Your task to perform on an android device: turn off sleep mode Image 0: 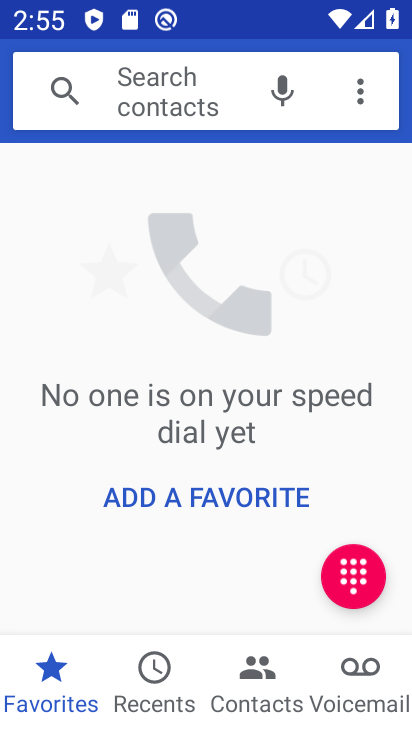
Step 0: press home button
Your task to perform on an android device: turn off sleep mode Image 1: 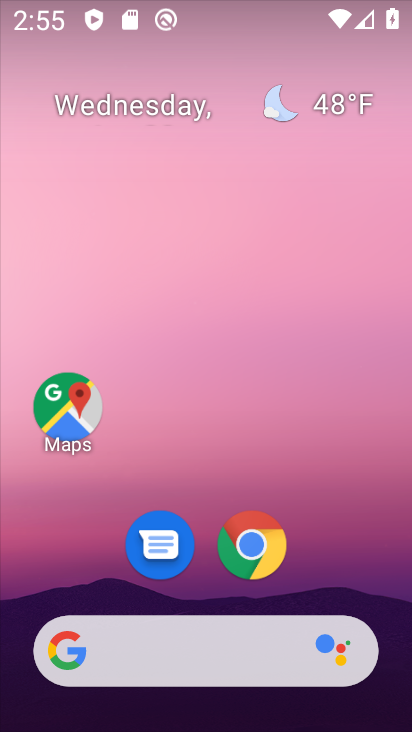
Step 1: drag from (331, 577) to (382, 70)
Your task to perform on an android device: turn off sleep mode Image 2: 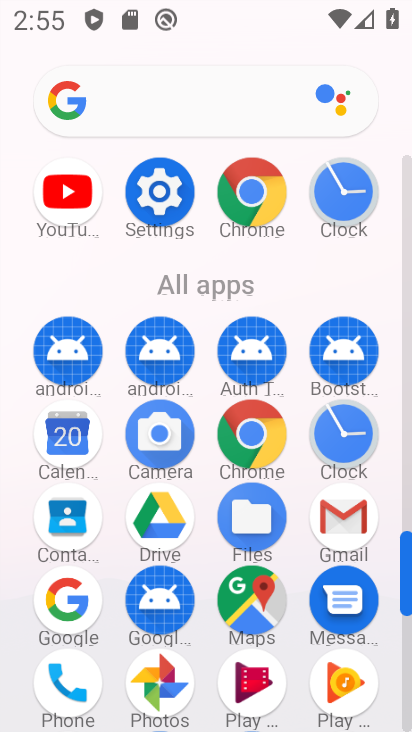
Step 2: drag from (195, 530) to (239, 166)
Your task to perform on an android device: turn off sleep mode Image 3: 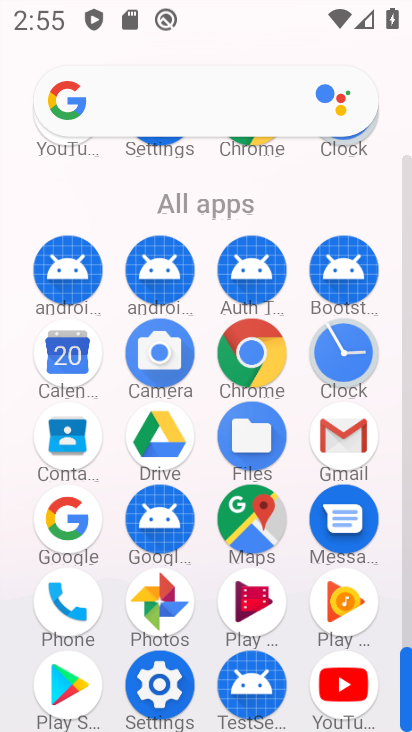
Step 3: click (167, 675)
Your task to perform on an android device: turn off sleep mode Image 4: 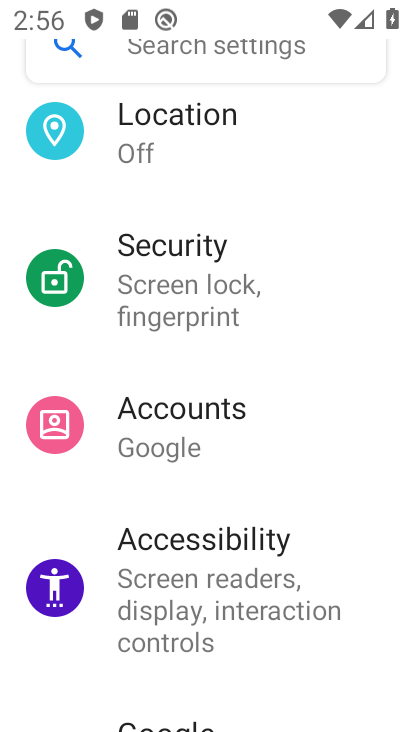
Step 4: drag from (257, 579) to (224, 186)
Your task to perform on an android device: turn off sleep mode Image 5: 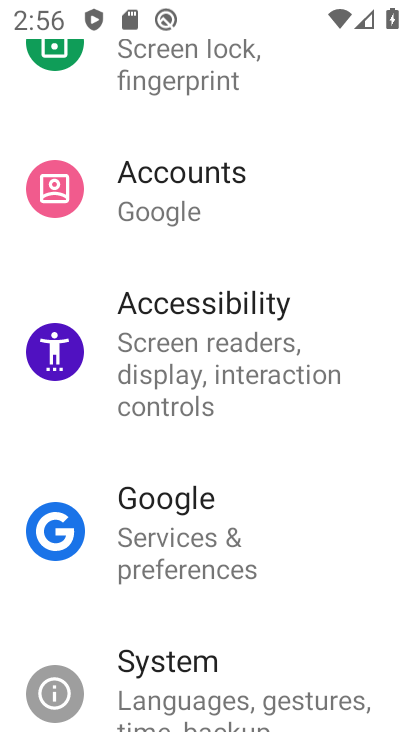
Step 5: drag from (276, 280) to (297, 600)
Your task to perform on an android device: turn off sleep mode Image 6: 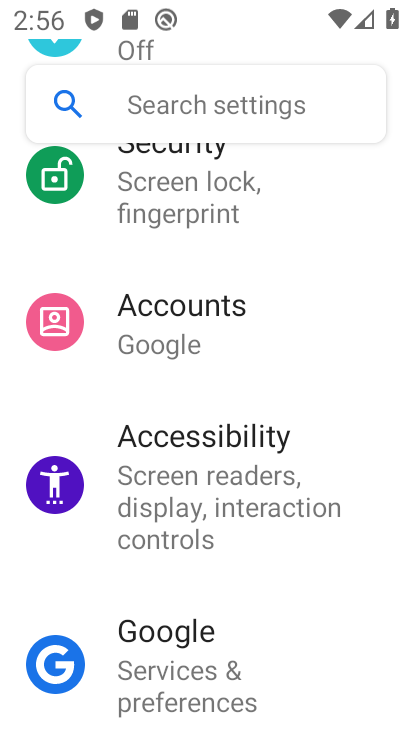
Step 6: drag from (290, 236) to (300, 590)
Your task to perform on an android device: turn off sleep mode Image 7: 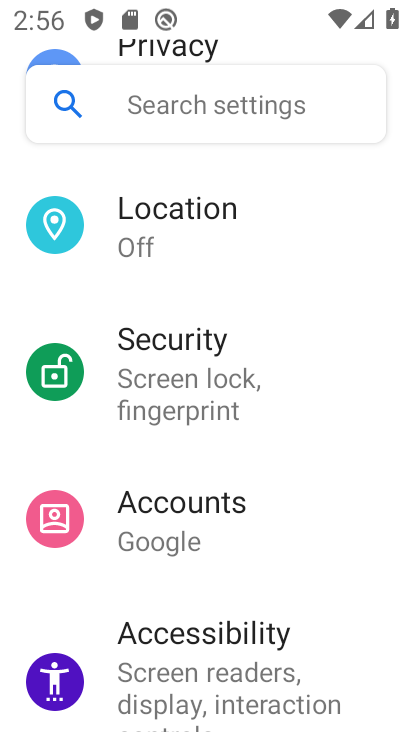
Step 7: drag from (291, 289) to (296, 668)
Your task to perform on an android device: turn off sleep mode Image 8: 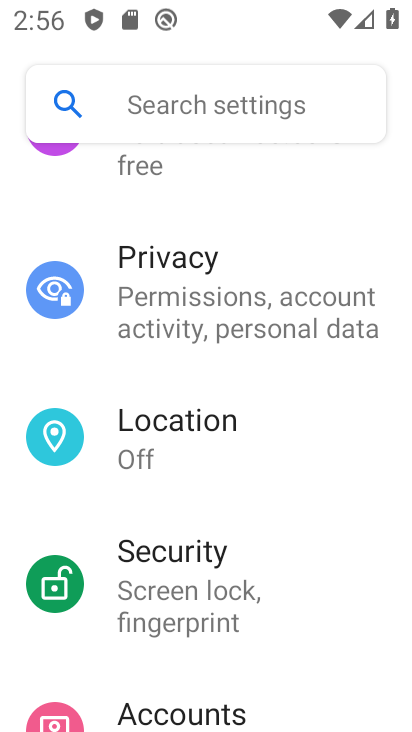
Step 8: drag from (280, 284) to (305, 673)
Your task to perform on an android device: turn off sleep mode Image 9: 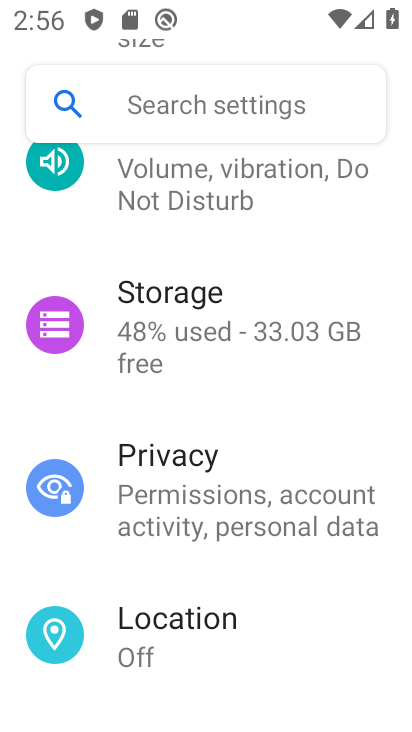
Step 9: drag from (304, 241) to (320, 671)
Your task to perform on an android device: turn off sleep mode Image 10: 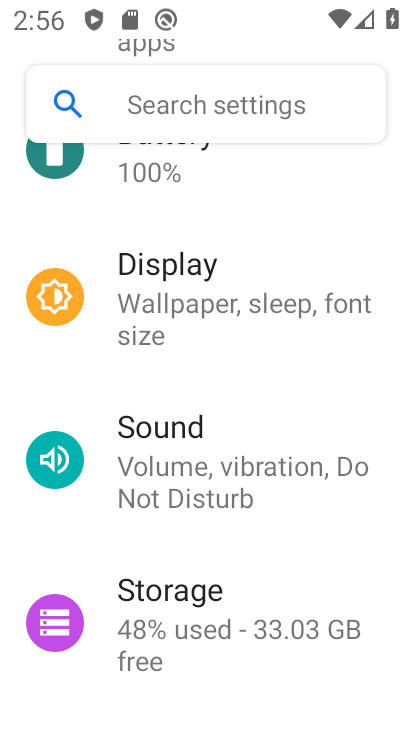
Step 10: click (303, 301)
Your task to perform on an android device: turn off sleep mode Image 11: 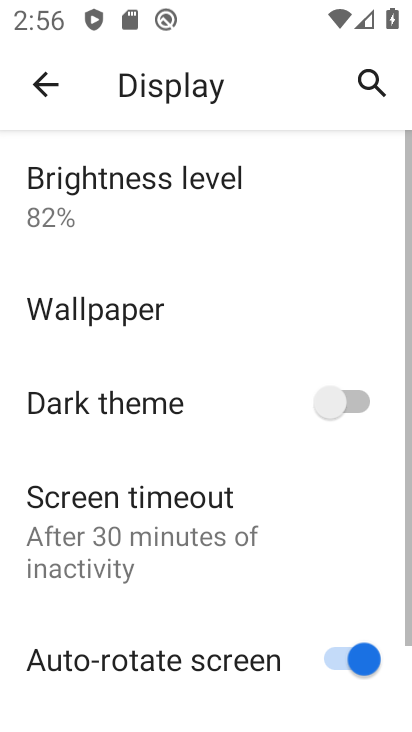
Step 11: click (234, 522)
Your task to perform on an android device: turn off sleep mode Image 12: 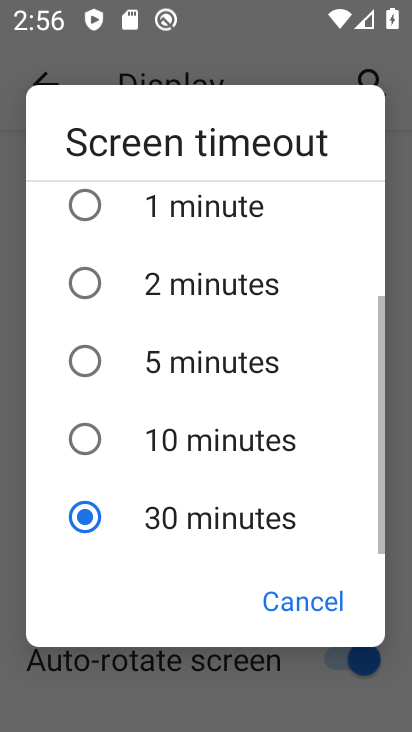
Step 12: task complete